Your task to perform on an android device: What's on the menu at Burger King? Image 0: 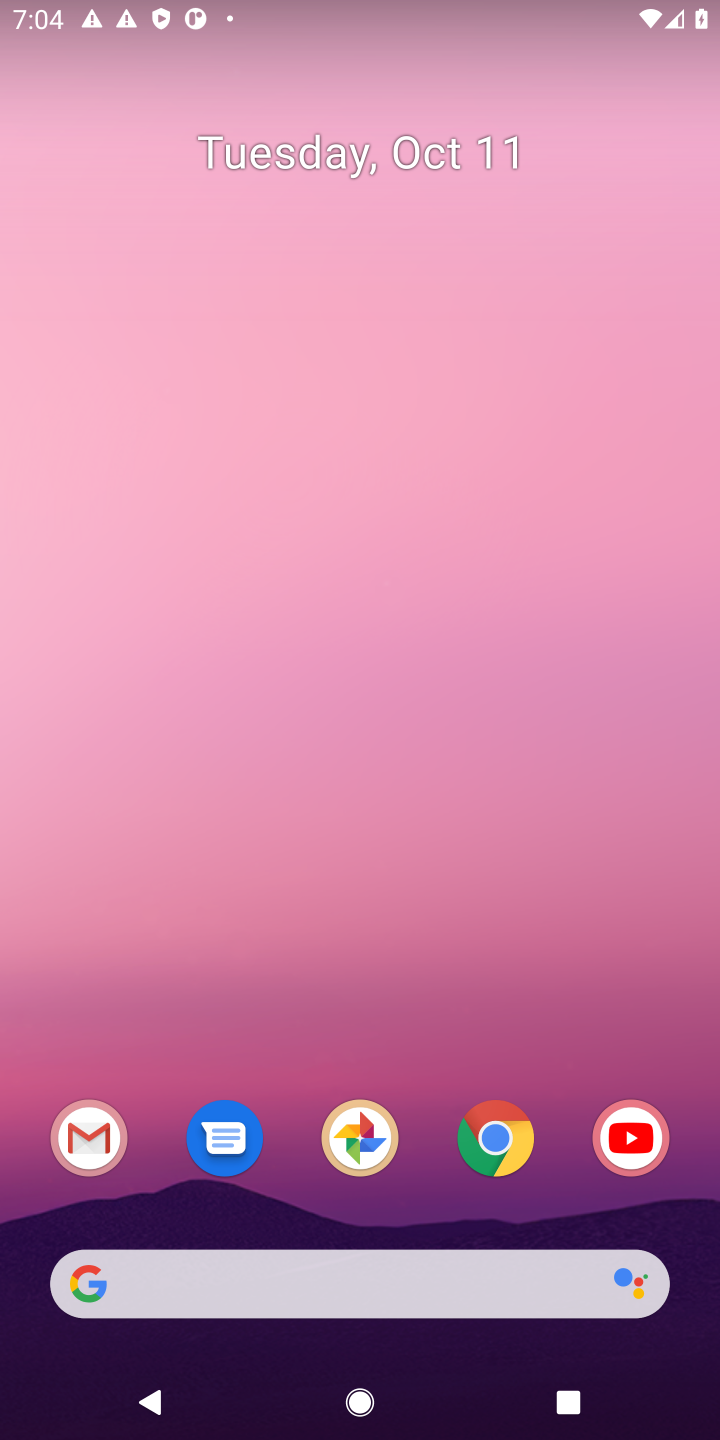
Step 0: click (178, 1272)
Your task to perform on an android device: What's on the menu at Burger King? Image 1: 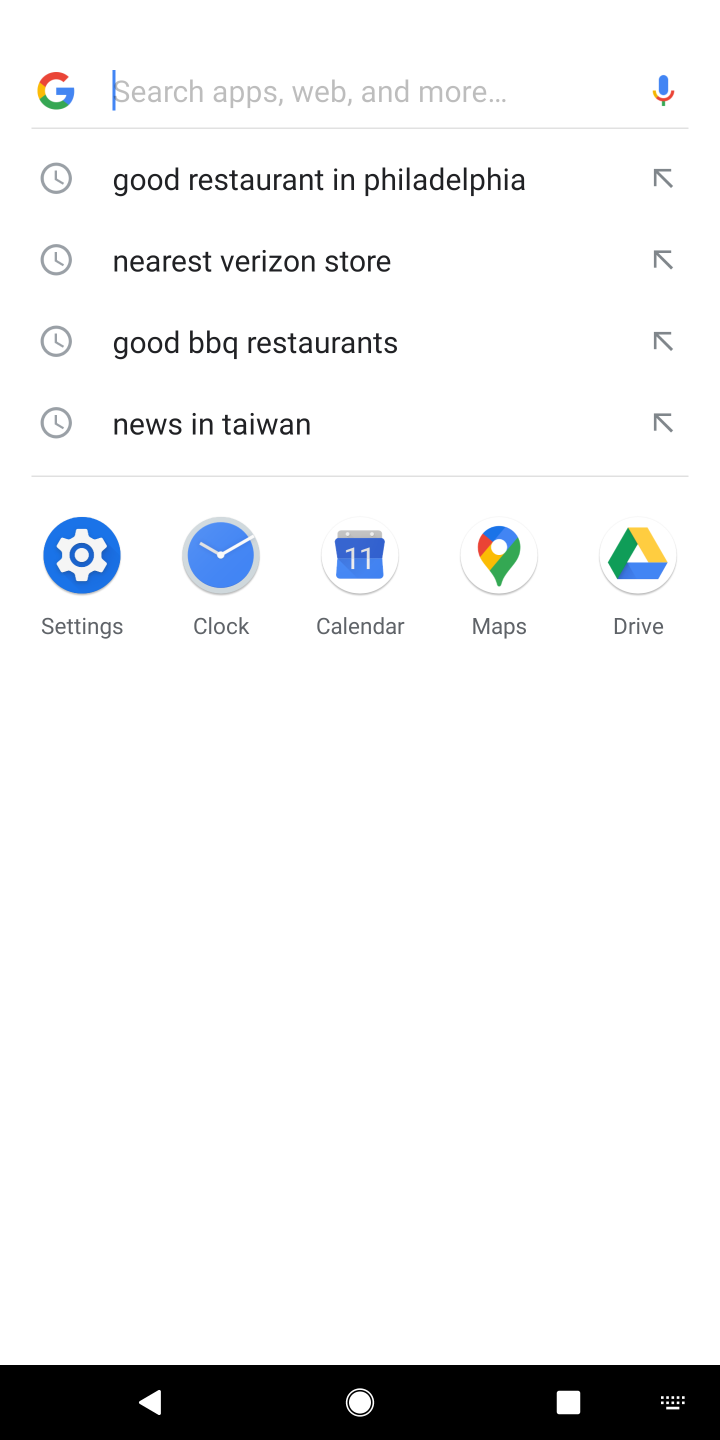
Step 1: type "What's on the menu at Burger King?"
Your task to perform on an android device: What's on the menu at Burger King? Image 2: 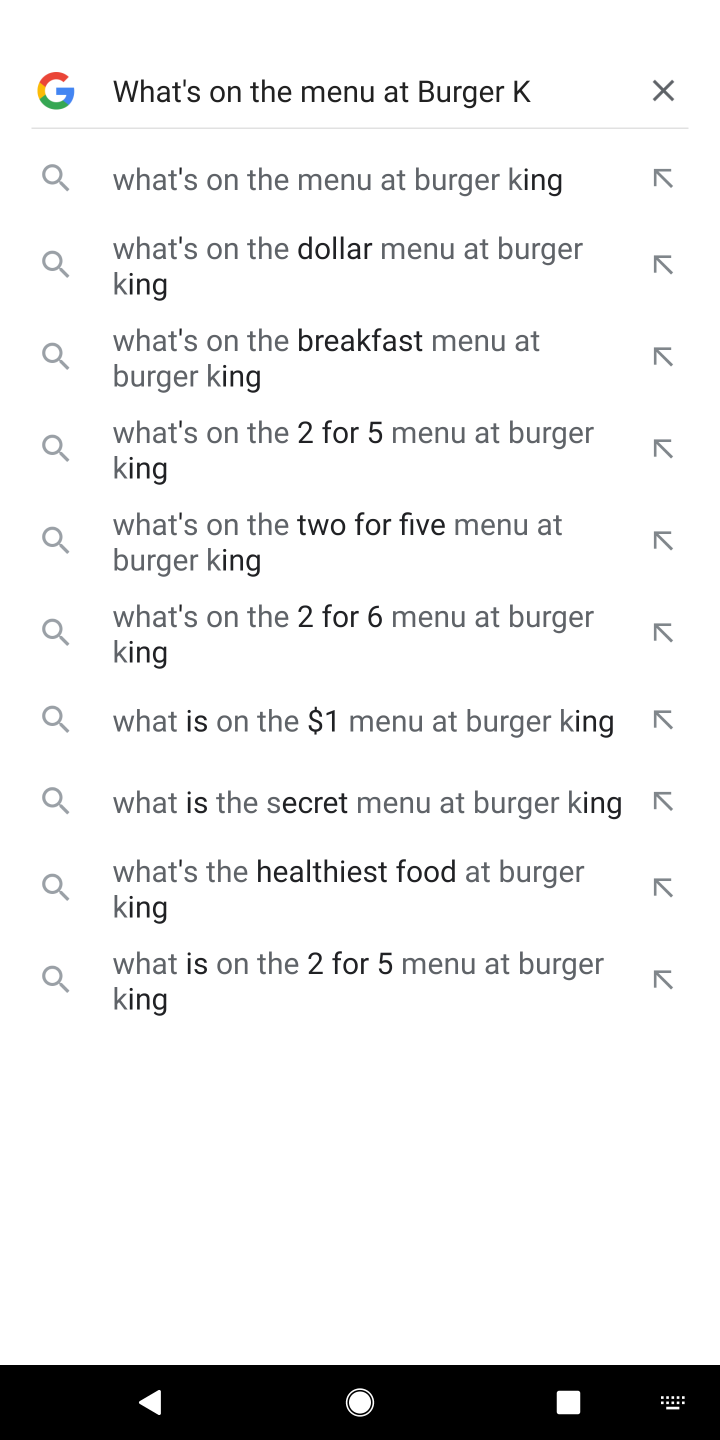
Step 2: click (285, 190)
Your task to perform on an android device: What's on the menu at Burger King? Image 3: 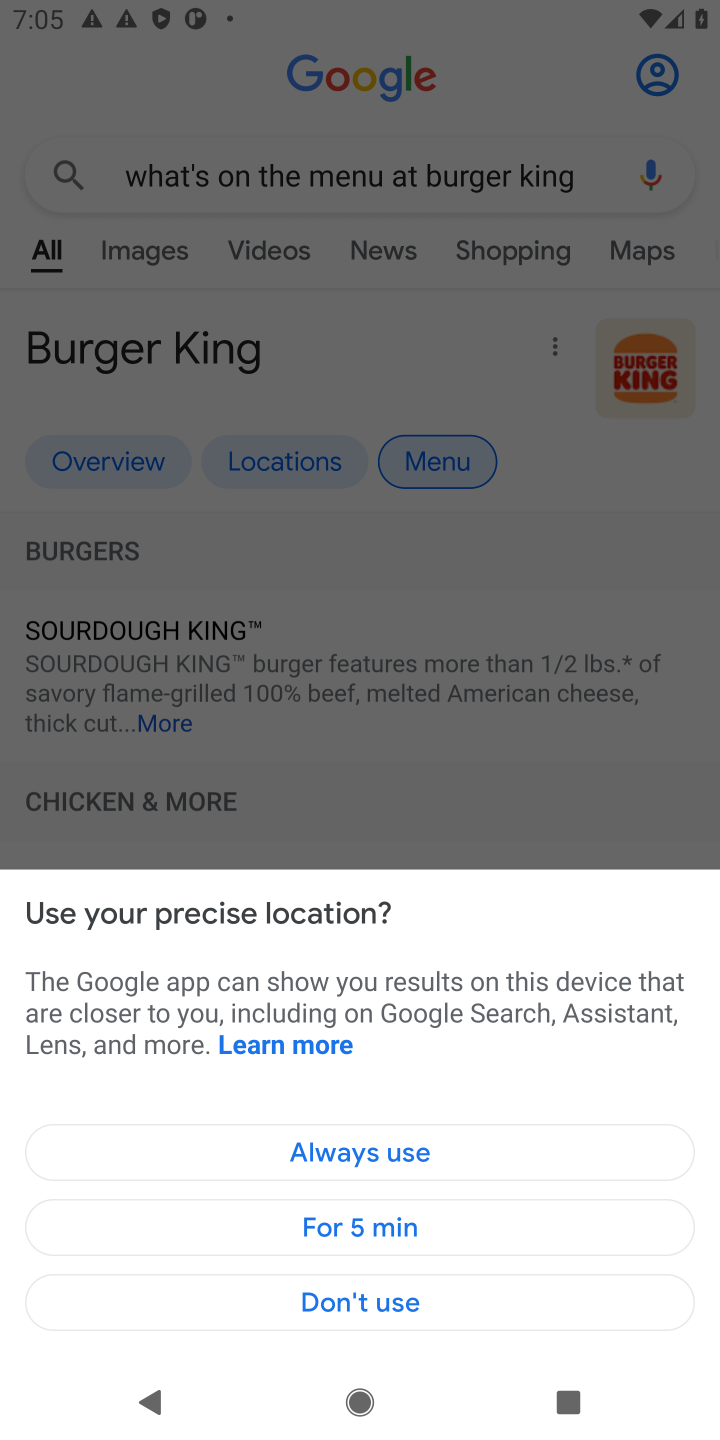
Step 3: click (362, 1162)
Your task to perform on an android device: What's on the menu at Burger King? Image 4: 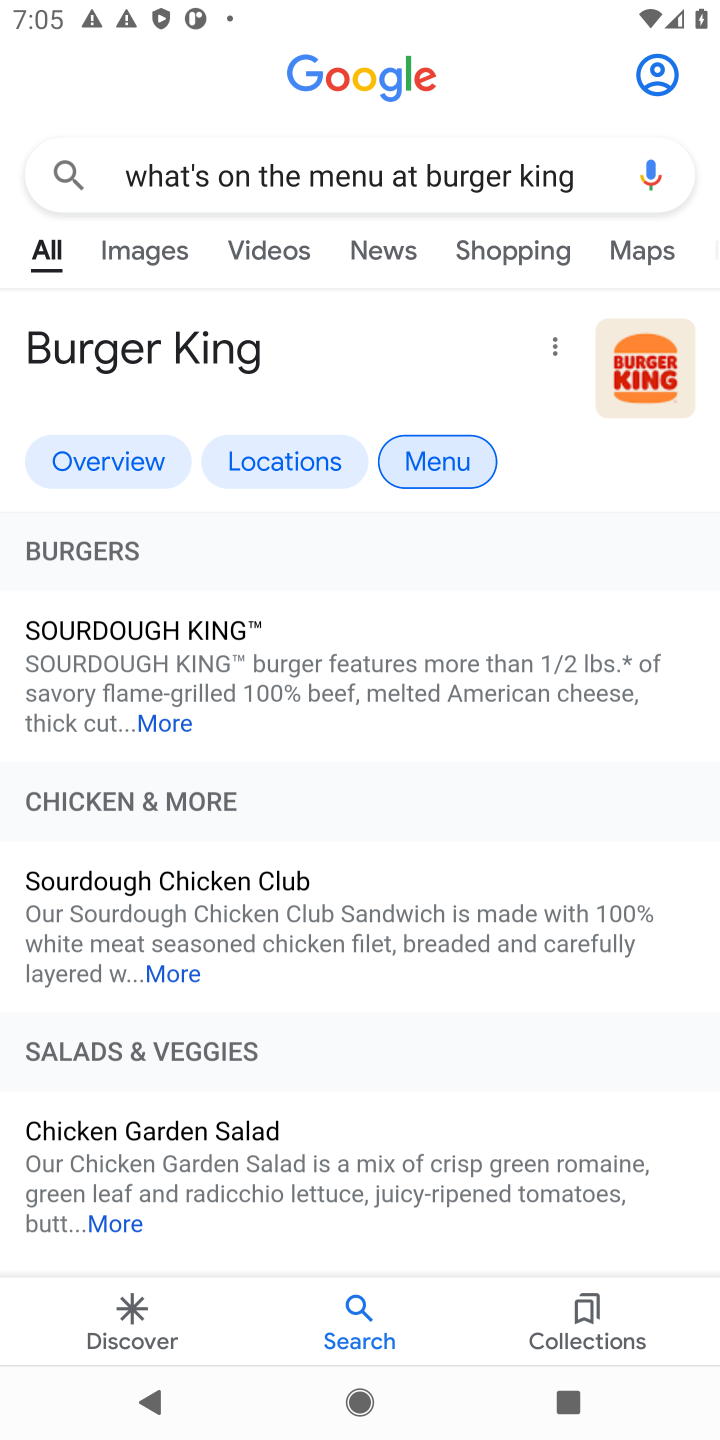
Step 4: drag from (376, 1014) to (329, 779)
Your task to perform on an android device: What's on the menu at Burger King? Image 5: 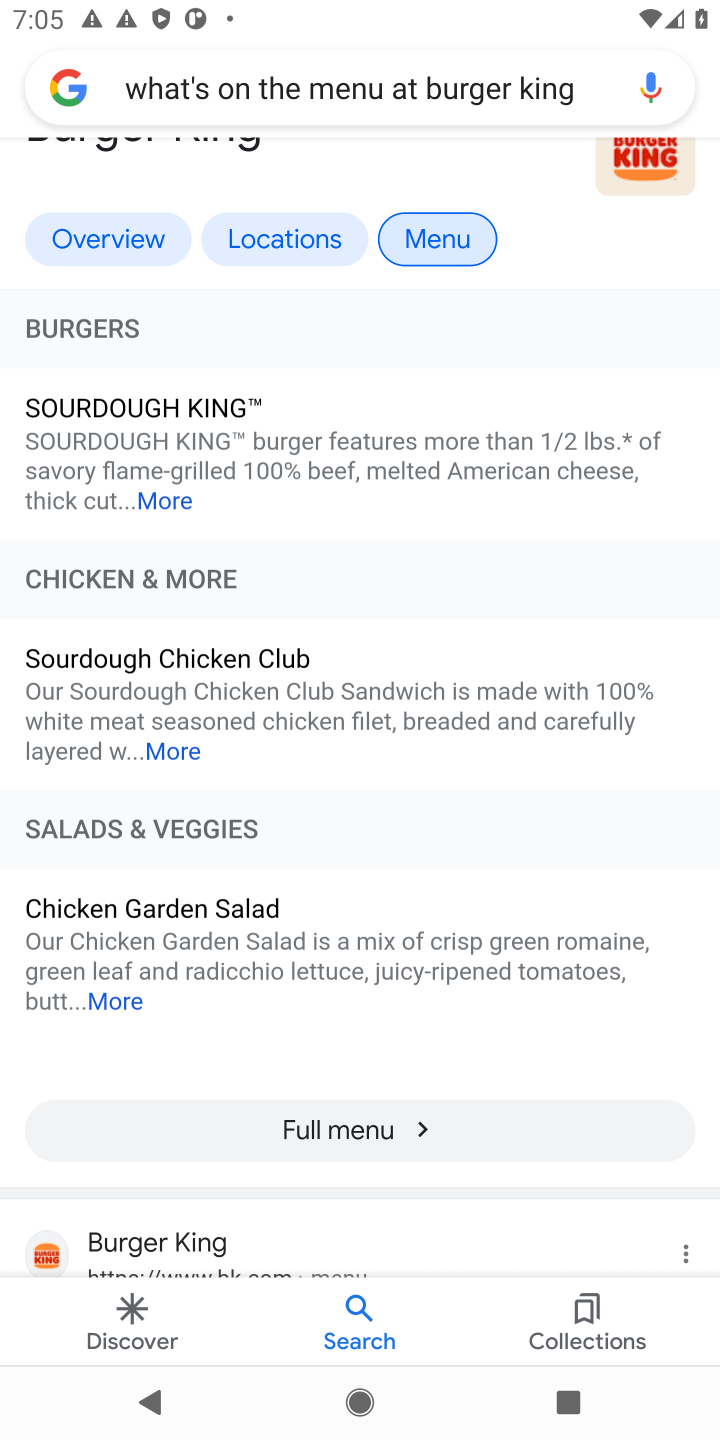
Step 5: click (360, 1136)
Your task to perform on an android device: What's on the menu at Burger King? Image 6: 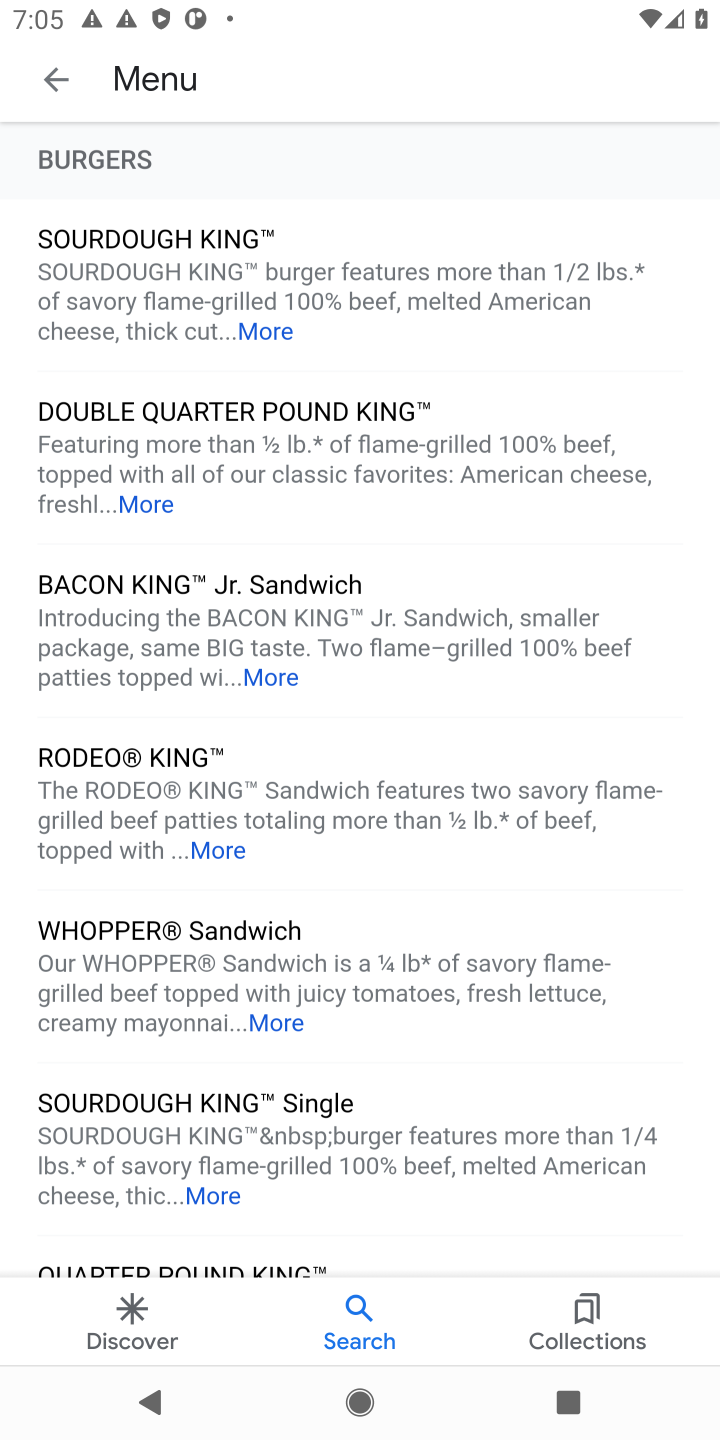
Step 6: task complete